Your task to perform on an android device: turn on wifi Image 0: 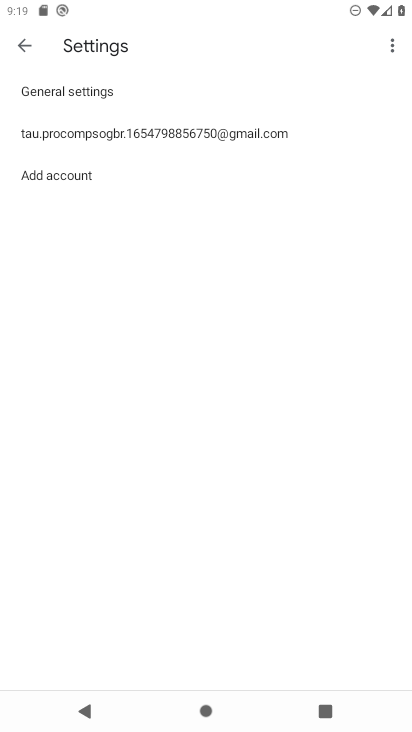
Step 0: drag from (144, 13) to (190, 491)
Your task to perform on an android device: turn on wifi Image 1: 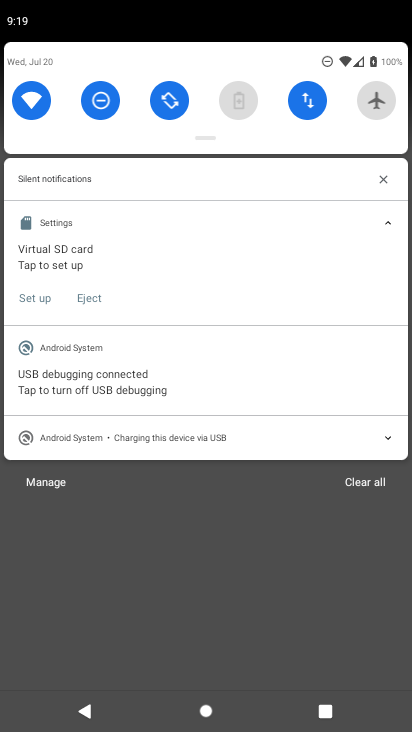
Step 1: task complete